Your task to perform on an android device: turn off wifi Image 0: 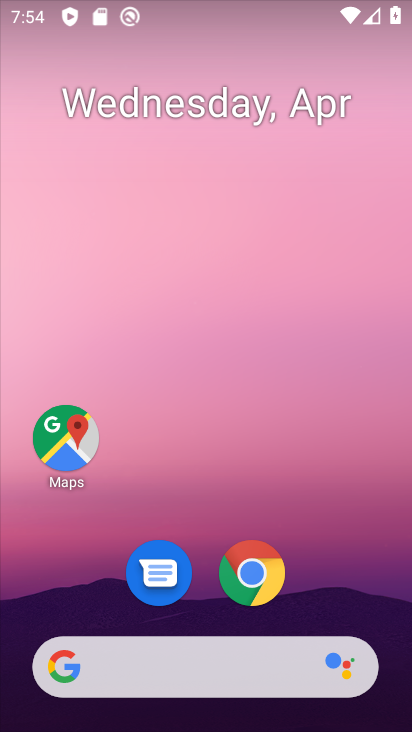
Step 0: drag from (80, 583) to (336, 251)
Your task to perform on an android device: turn off wifi Image 1: 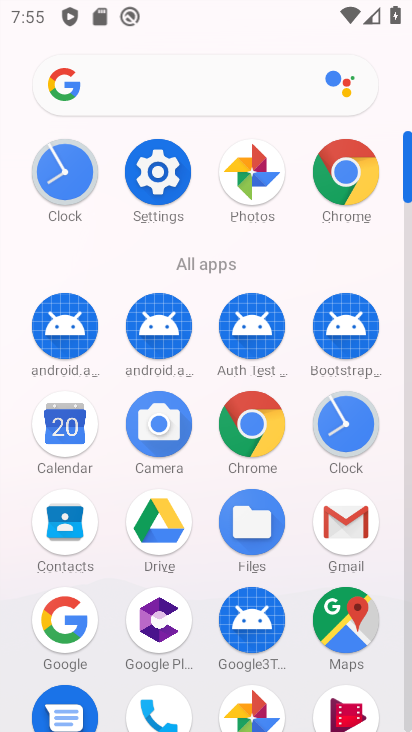
Step 1: click (168, 186)
Your task to perform on an android device: turn off wifi Image 2: 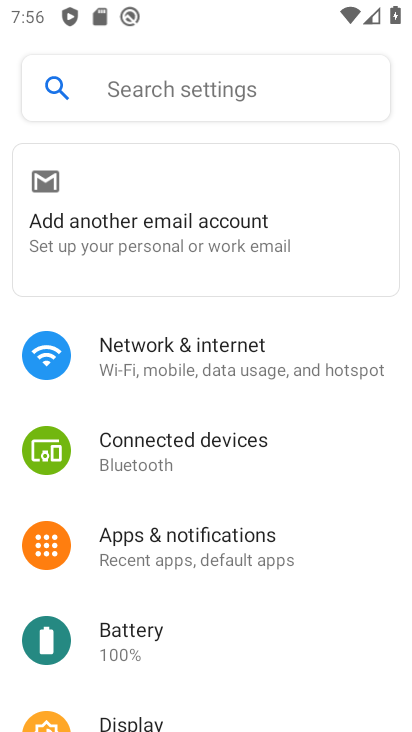
Step 2: click (279, 354)
Your task to perform on an android device: turn off wifi Image 3: 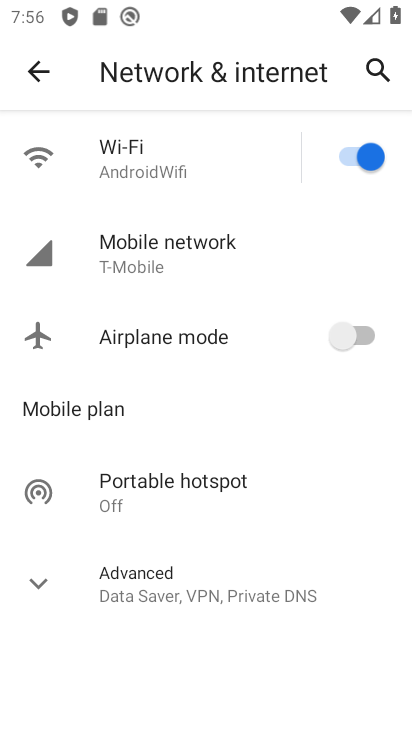
Step 3: click (369, 160)
Your task to perform on an android device: turn off wifi Image 4: 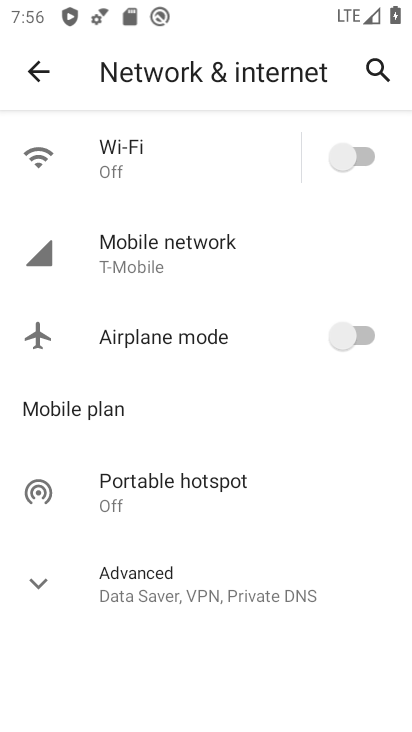
Step 4: task complete